Your task to perform on an android device: Show the shopping cart on ebay.com. Add "bose soundsport free" to the cart on ebay.com Image 0: 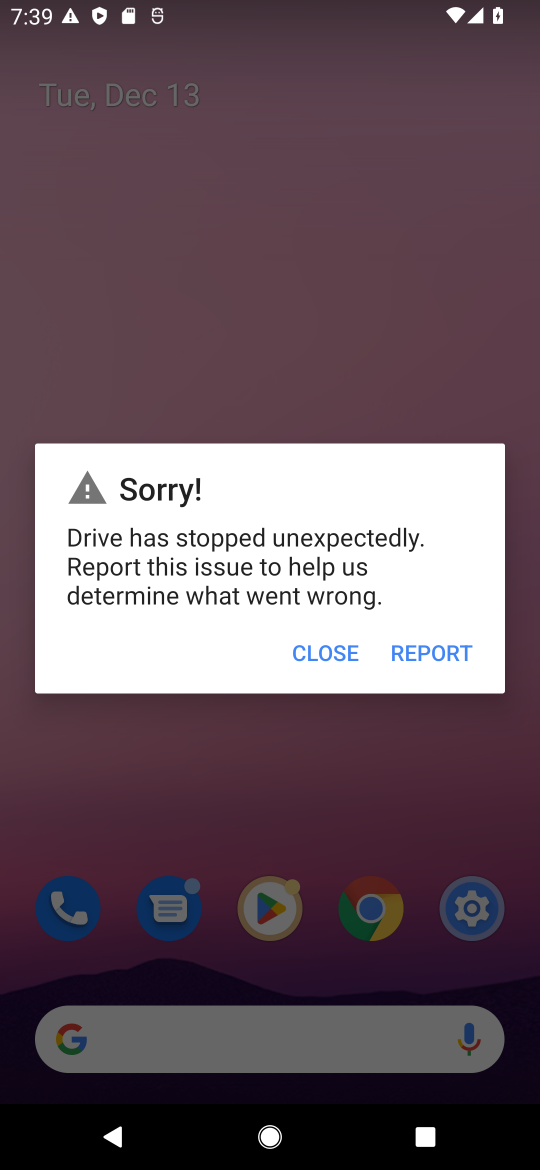
Step 0: press home button
Your task to perform on an android device: Show the shopping cart on ebay.com. Add "bose soundsport free" to the cart on ebay.com Image 1: 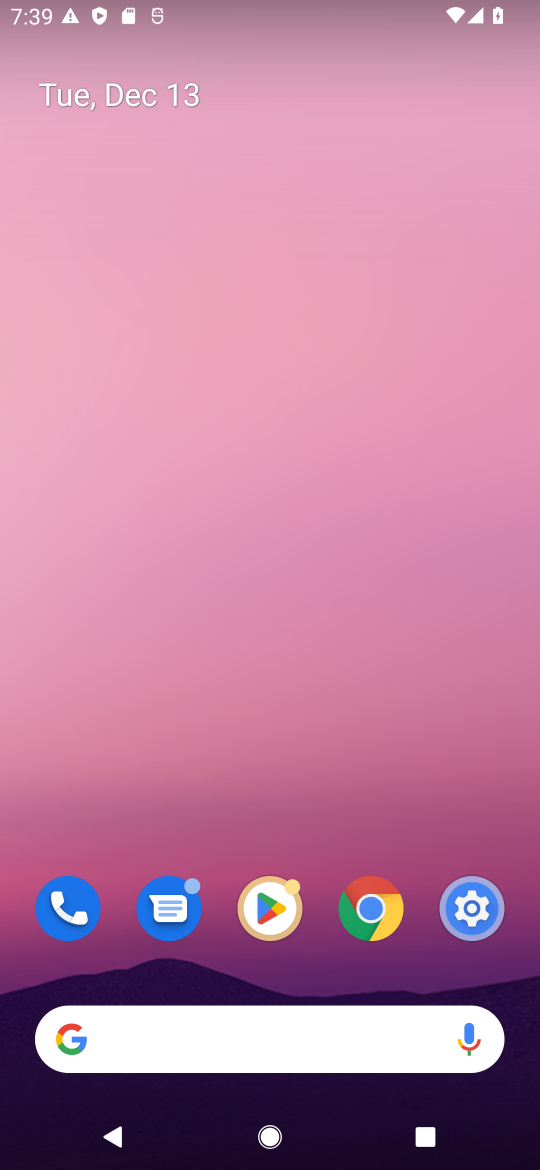
Step 1: click (106, 1031)
Your task to perform on an android device: Show the shopping cart on ebay.com. Add "bose soundsport free" to the cart on ebay.com Image 2: 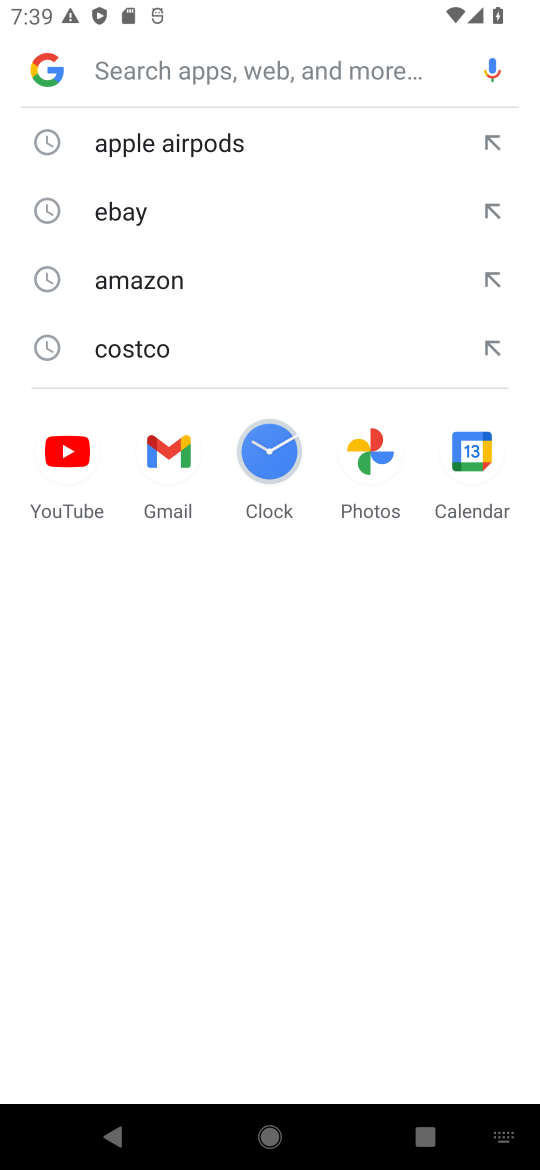
Step 2: type "ebay.com"
Your task to perform on an android device: Show the shopping cart on ebay.com. Add "bose soundsport free" to the cart on ebay.com Image 3: 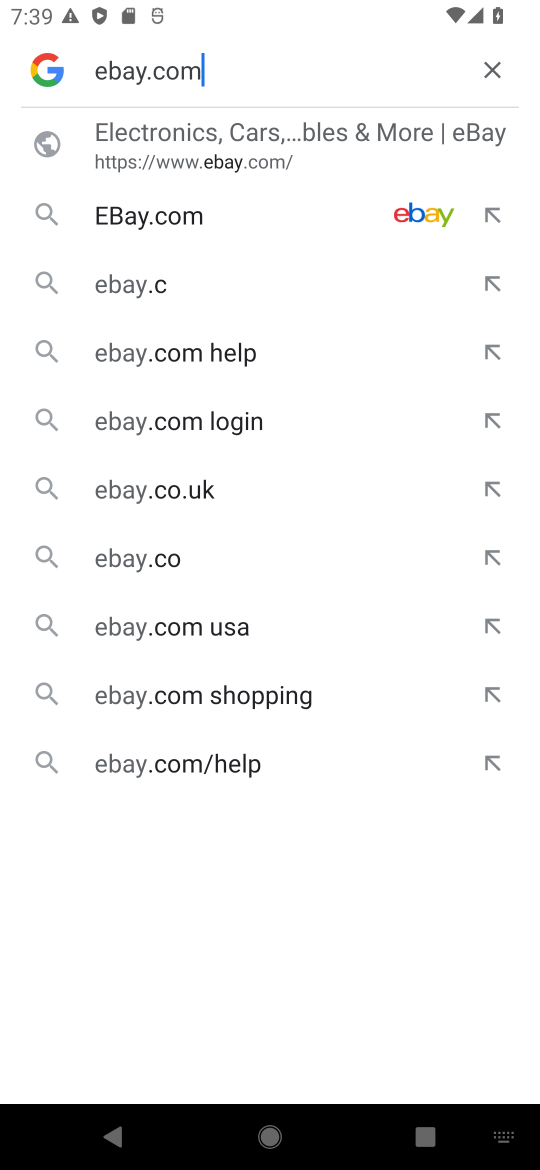
Step 3: press enter
Your task to perform on an android device: Show the shopping cart on ebay.com. Add "bose soundsport free" to the cart on ebay.com Image 4: 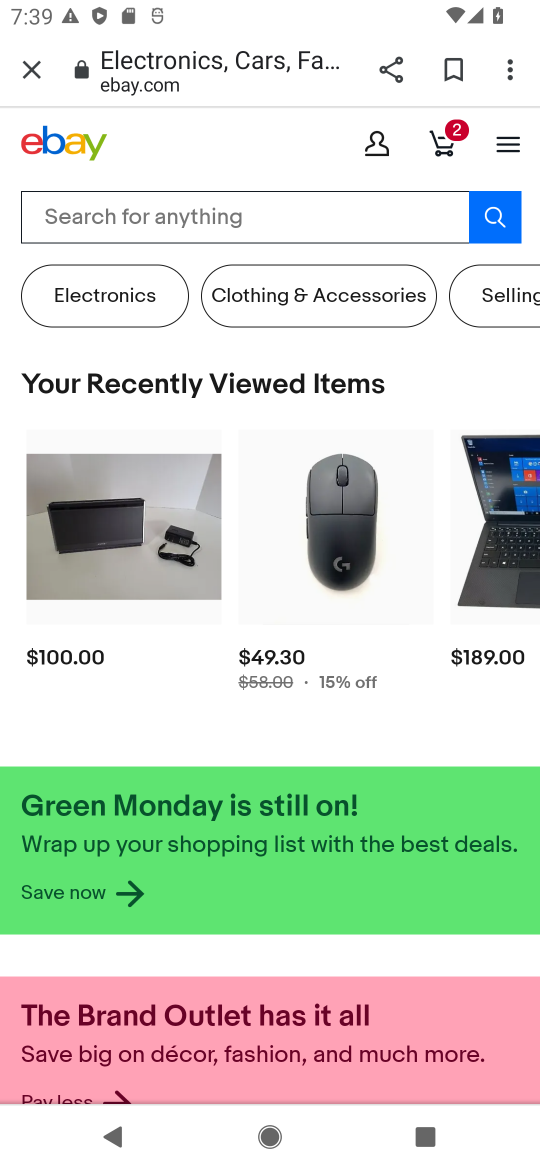
Step 4: click (443, 142)
Your task to perform on an android device: Show the shopping cart on ebay.com. Add "bose soundsport free" to the cart on ebay.com Image 5: 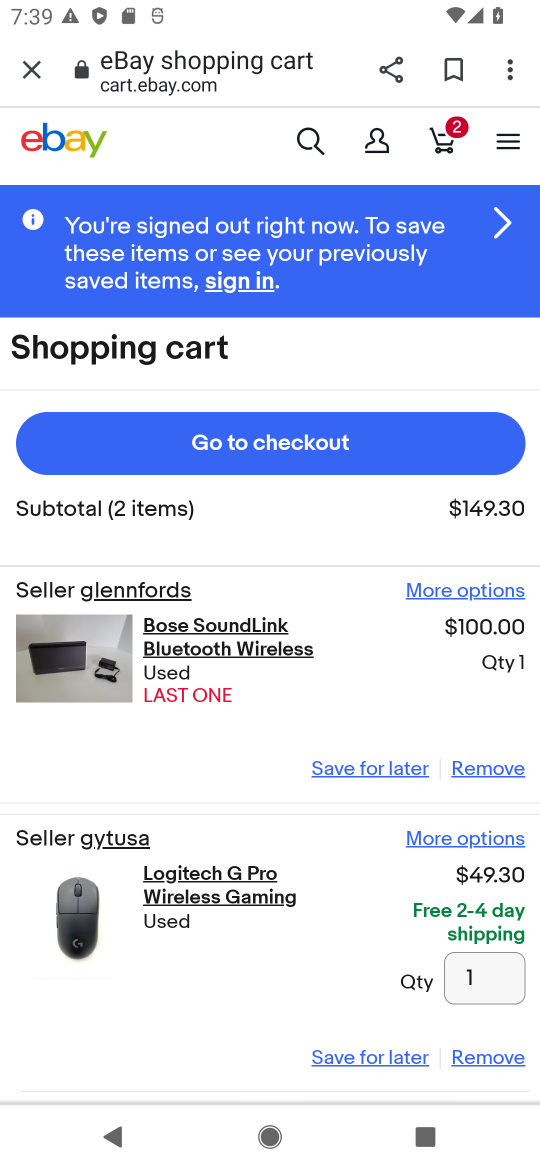
Step 5: click (305, 128)
Your task to perform on an android device: Show the shopping cart on ebay.com. Add "bose soundsport free" to the cart on ebay.com Image 6: 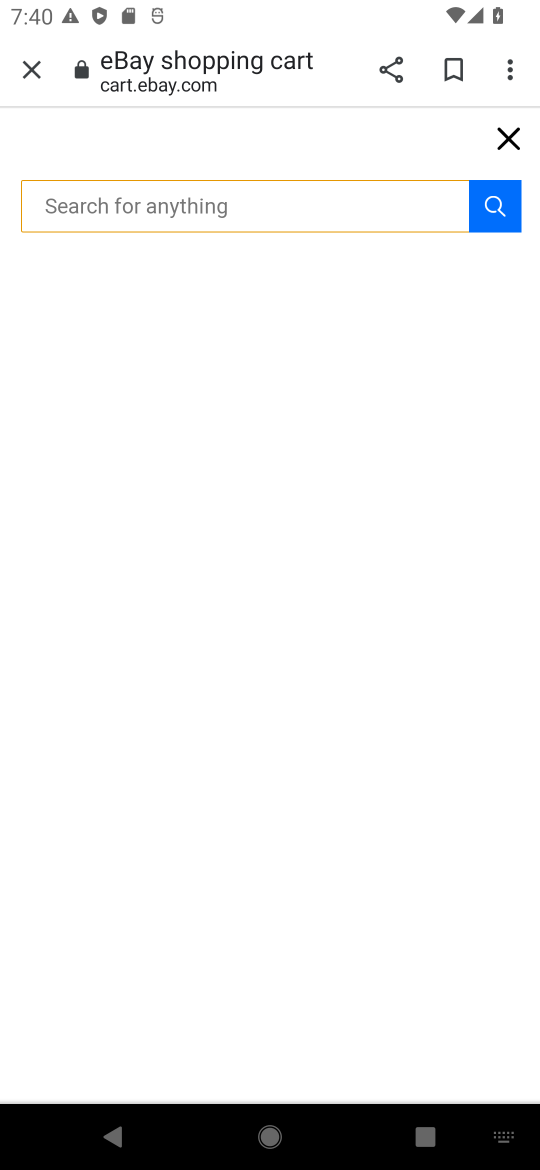
Step 6: type "bose soundsport free"
Your task to perform on an android device: Show the shopping cart on ebay.com. Add "bose soundsport free" to the cart on ebay.com Image 7: 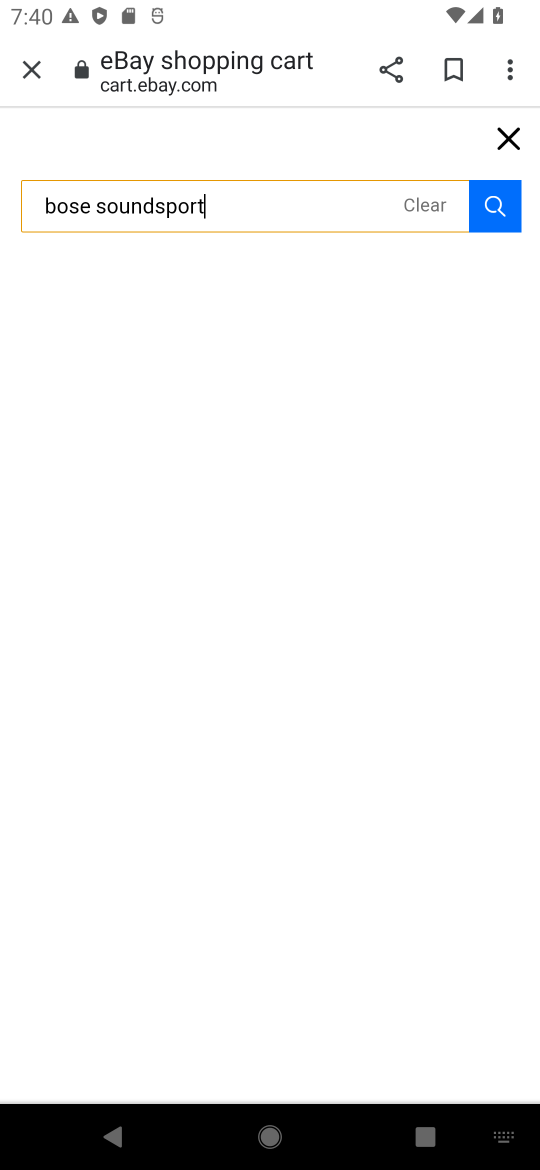
Step 7: press enter
Your task to perform on an android device: Show the shopping cart on ebay.com. Add "bose soundsport free" to the cart on ebay.com Image 8: 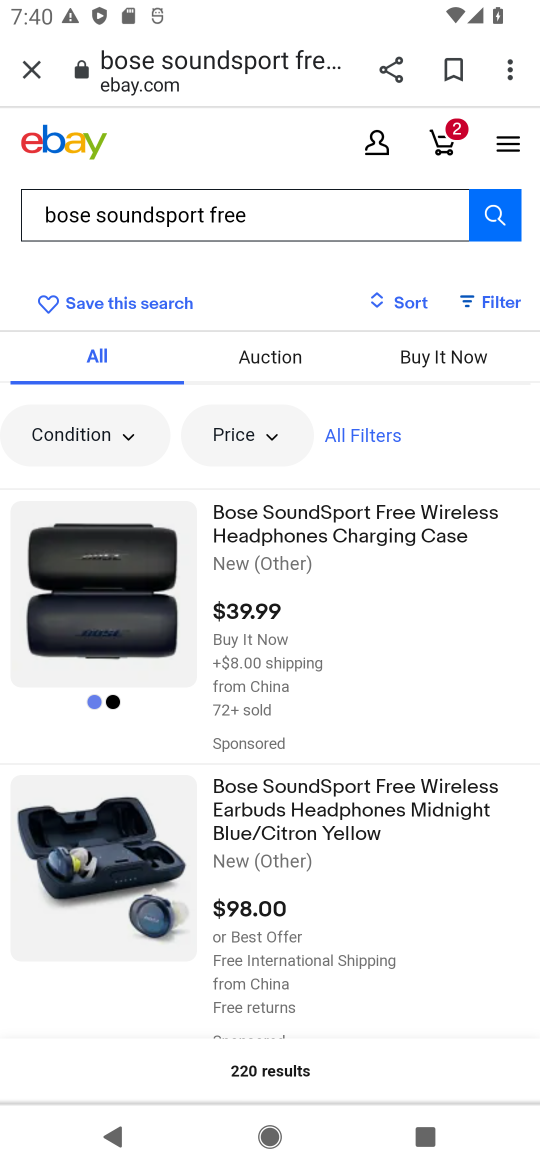
Step 8: click (278, 541)
Your task to perform on an android device: Show the shopping cart on ebay.com. Add "bose soundsport free" to the cart on ebay.com Image 9: 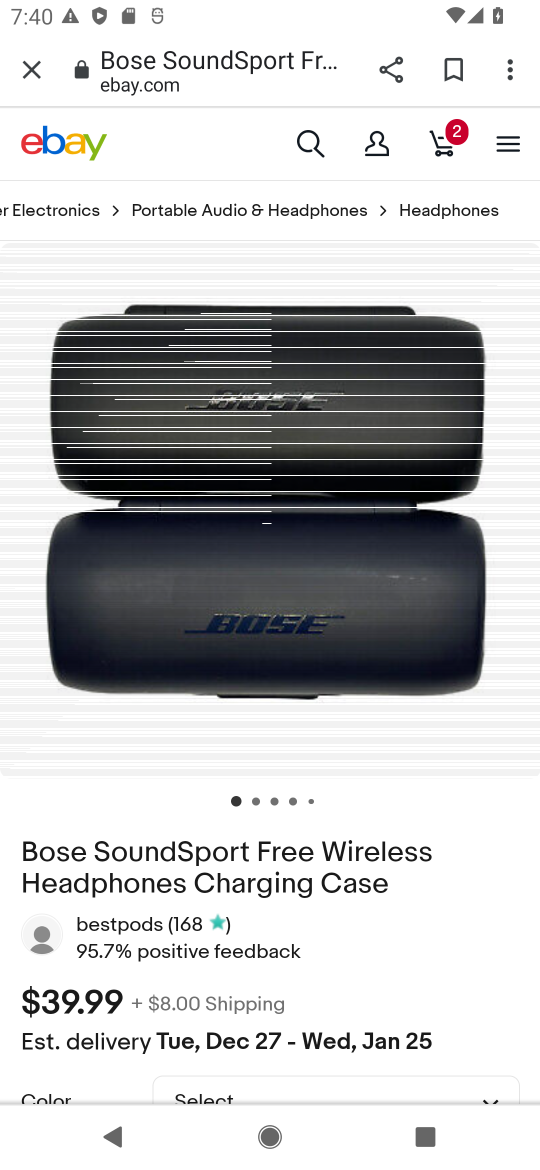
Step 9: drag from (295, 937) to (271, 304)
Your task to perform on an android device: Show the shopping cart on ebay.com. Add "bose soundsport free" to the cart on ebay.com Image 10: 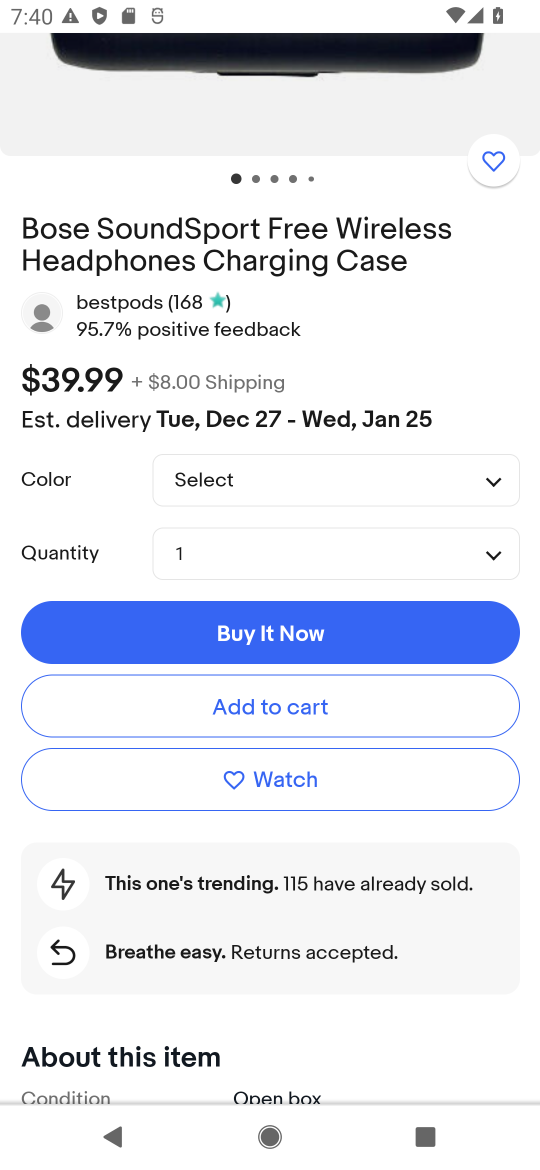
Step 10: click (255, 699)
Your task to perform on an android device: Show the shopping cart on ebay.com. Add "bose soundsport free" to the cart on ebay.com Image 11: 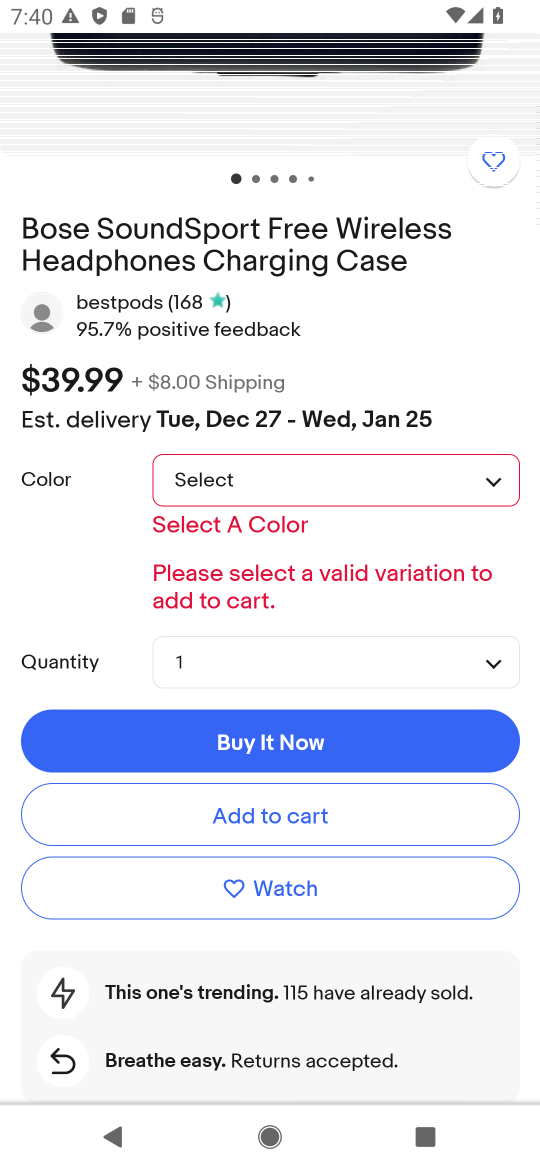
Step 11: click (488, 478)
Your task to perform on an android device: Show the shopping cart on ebay.com. Add "bose soundsport free" to the cart on ebay.com Image 12: 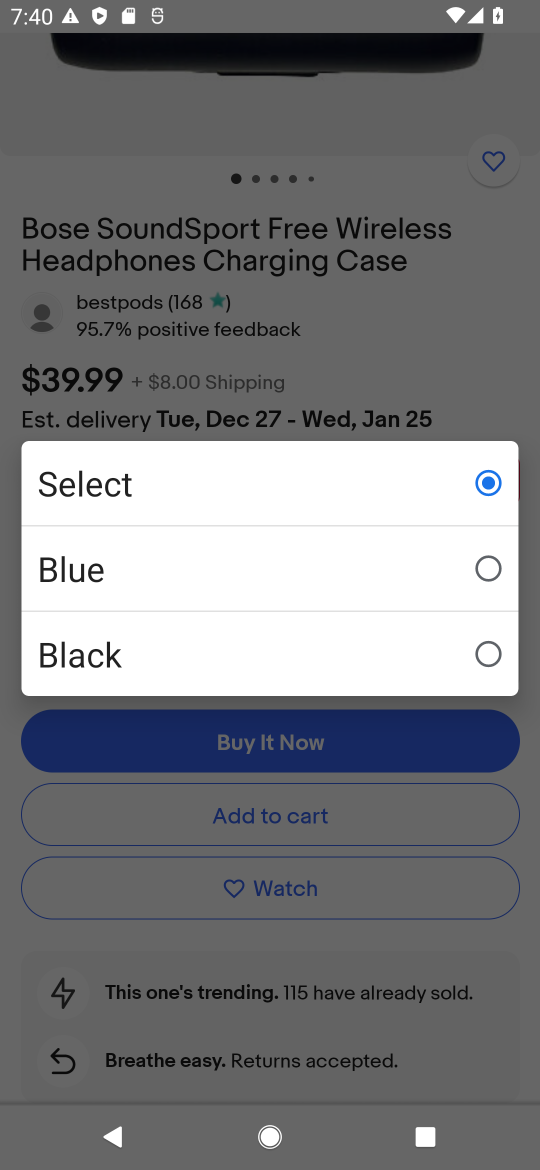
Step 12: click (484, 558)
Your task to perform on an android device: Show the shopping cart on ebay.com. Add "bose soundsport free" to the cart on ebay.com Image 13: 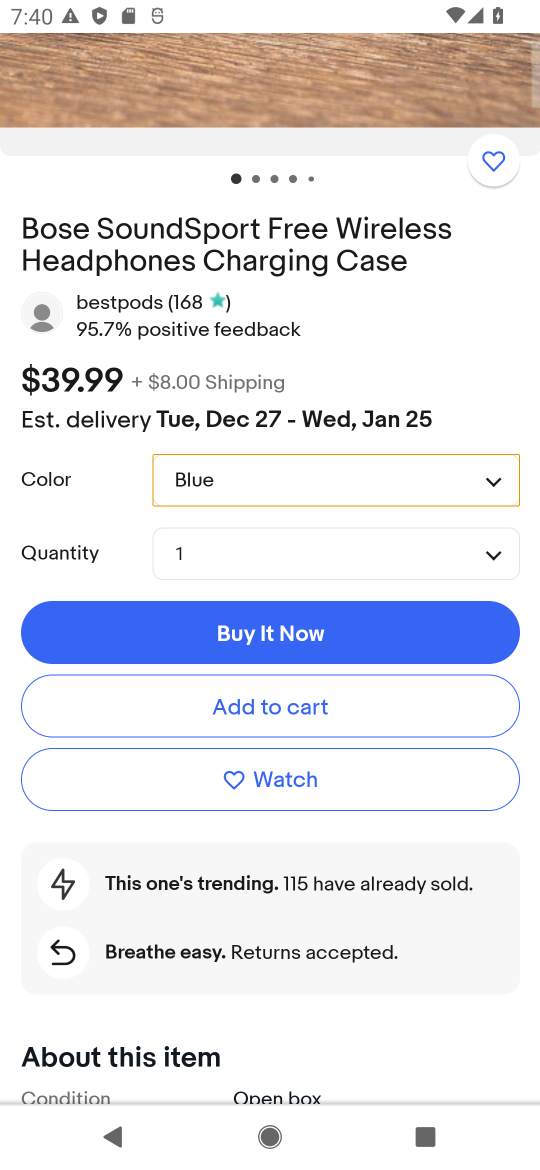
Step 13: click (238, 702)
Your task to perform on an android device: Show the shopping cart on ebay.com. Add "bose soundsport free" to the cart on ebay.com Image 14: 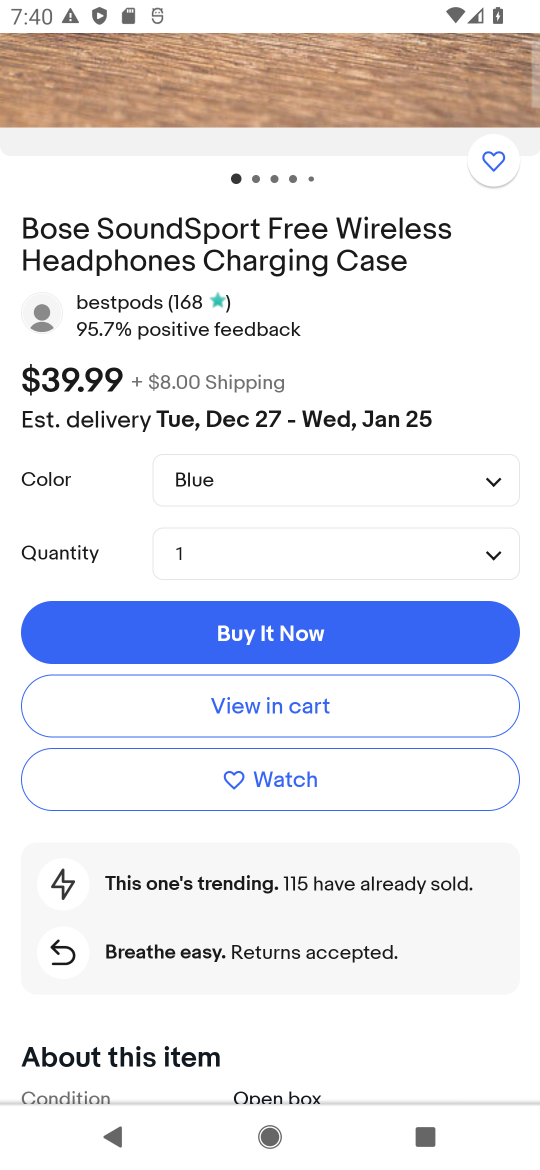
Step 14: task complete